Your task to perform on an android device: Open Google Chrome and click the shortcut for Amazon.com Image 0: 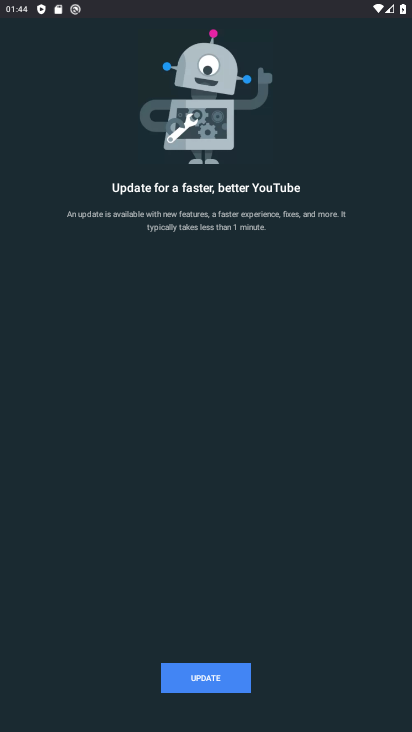
Step 0: press back button
Your task to perform on an android device: Open Google Chrome and click the shortcut for Amazon.com Image 1: 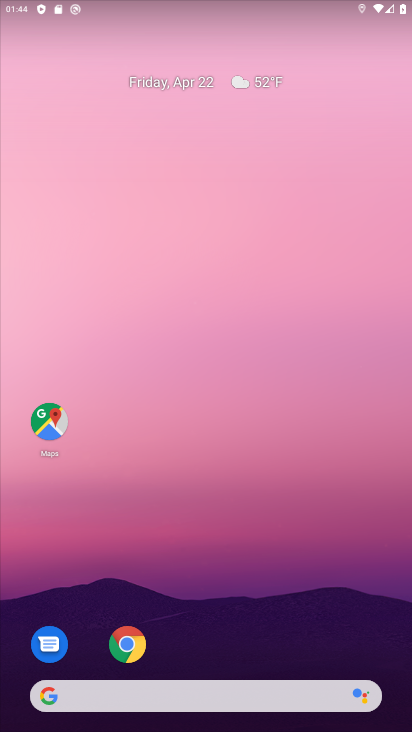
Step 1: click (125, 657)
Your task to perform on an android device: Open Google Chrome and click the shortcut for Amazon.com Image 2: 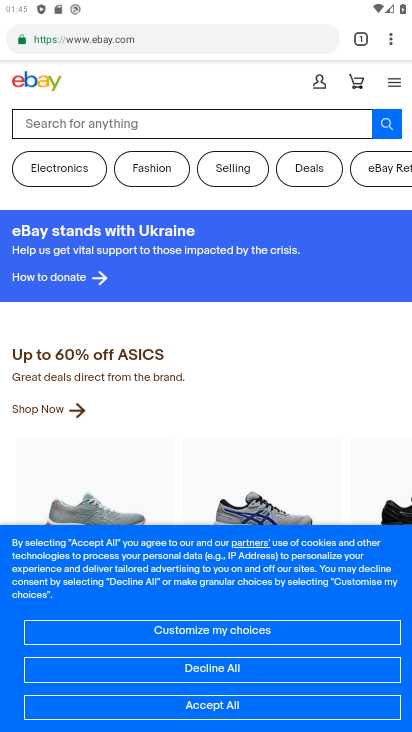
Step 2: click (358, 41)
Your task to perform on an android device: Open Google Chrome and click the shortcut for Amazon.com Image 3: 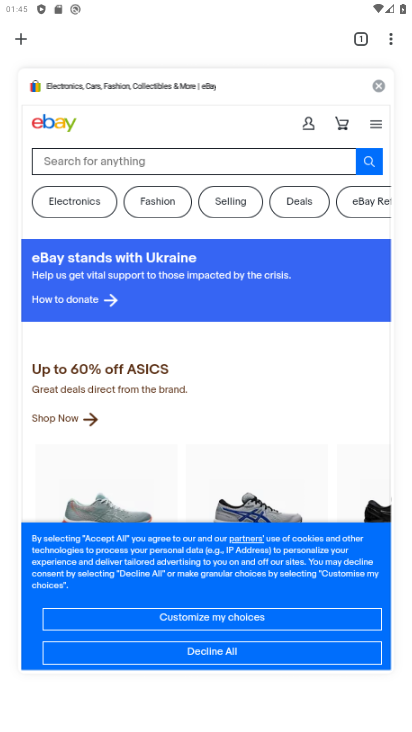
Step 3: click (23, 37)
Your task to perform on an android device: Open Google Chrome and click the shortcut for Amazon.com Image 4: 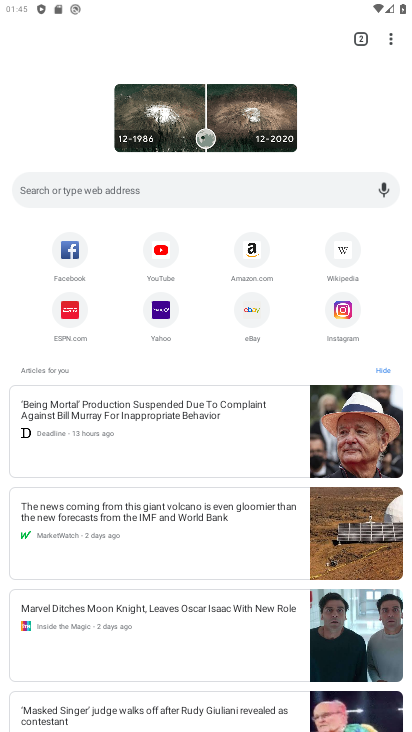
Step 4: click (261, 259)
Your task to perform on an android device: Open Google Chrome and click the shortcut for Amazon.com Image 5: 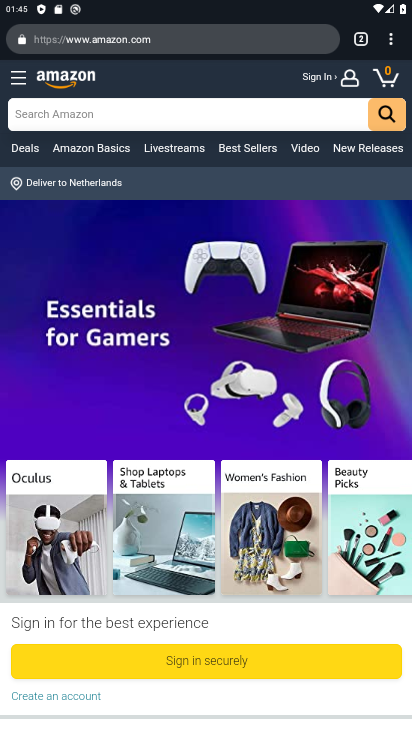
Step 5: task complete